Your task to perform on an android device: Go to calendar. Show me events next week Image 0: 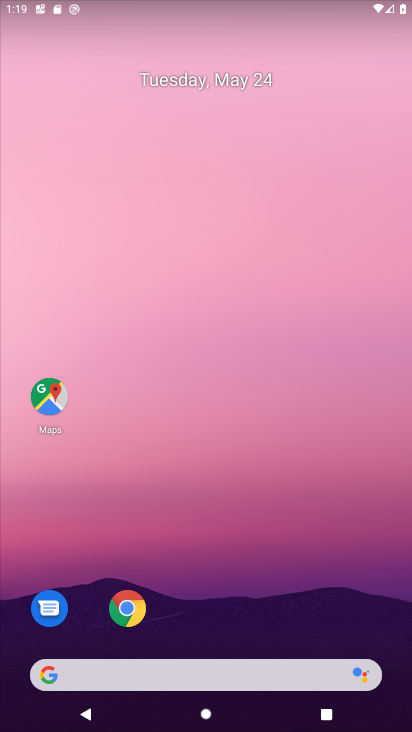
Step 0: drag from (288, 611) to (210, 2)
Your task to perform on an android device: Go to calendar. Show me events next week Image 1: 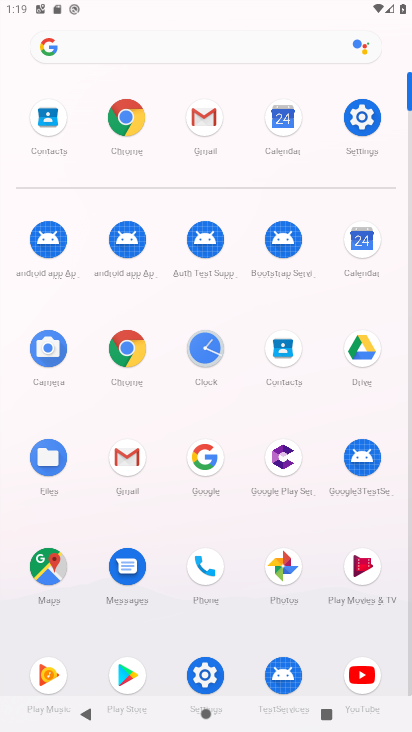
Step 1: click (57, 141)
Your task to perform on an android device: Go to calendar. Show me events next week Image 2: 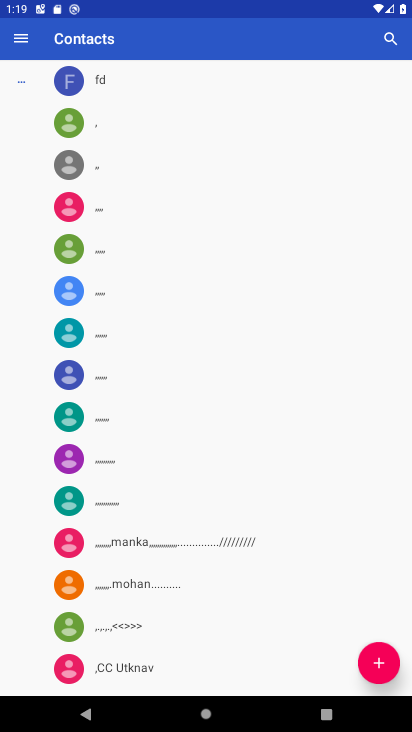
Step 2: press home button
Your task to perform on an android device: Go to calendar. Show me events next week Image 3: 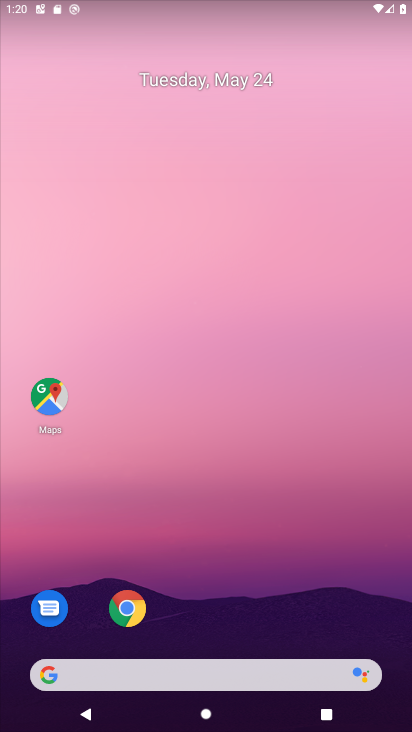
Step 3: drag from (340, 638) to (275, 122)
Your task to perform on an android device: Go to calendar. Show me events next week Image 4: 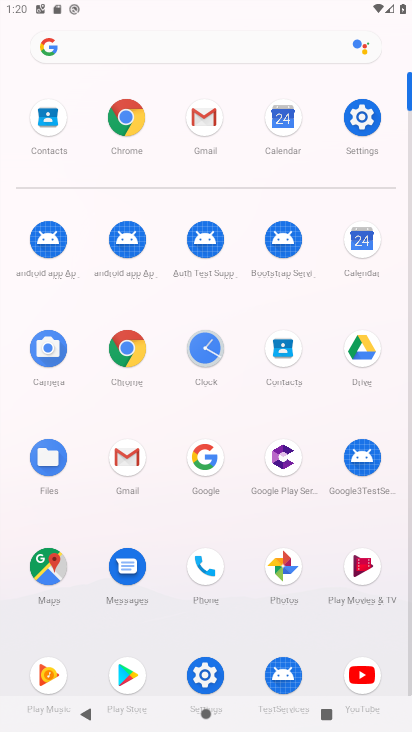
Step 4: click (297, 141)
Your task to perform on an android device: Go to calendar. Show me events next week Image 5: 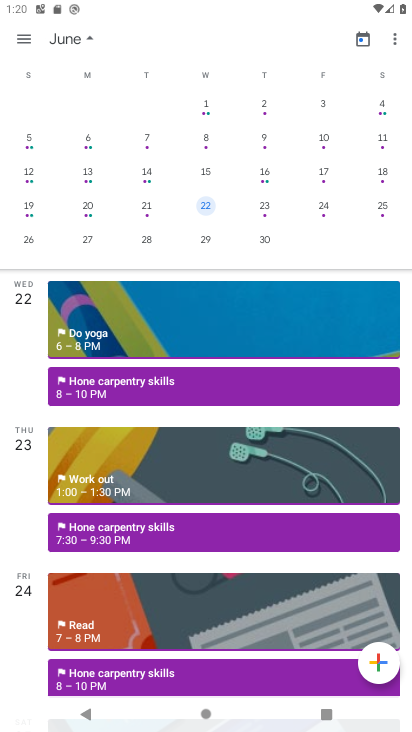
Step 5: task complete